Your task to perform on an android device: change the clock display to show seconds Image 0: 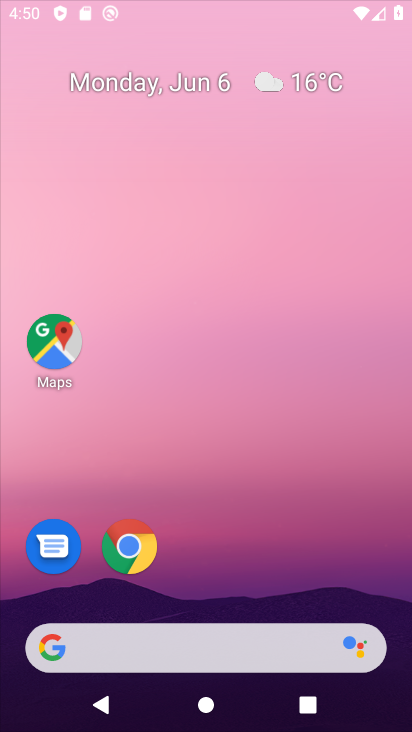
Step 0: click (50, 348)
Your task to perform on an android device: change the clock display to show seconds Image 1: 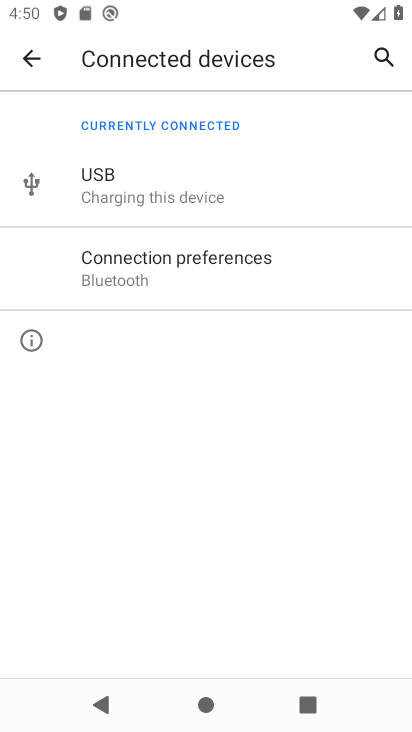
Step 1: press home button
Your task to perform on an android device: change the clock display to show seconds Image 2: 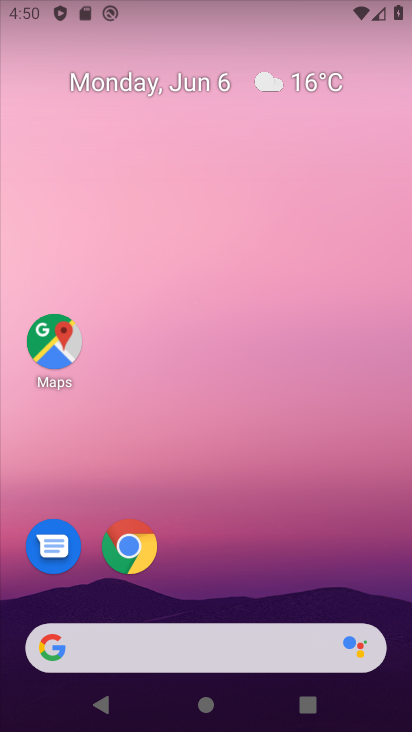
Step 2: drag from (238, 594) to (234, 164)
Your task to perform on an android device: change the clock display to show seconds Image 3: 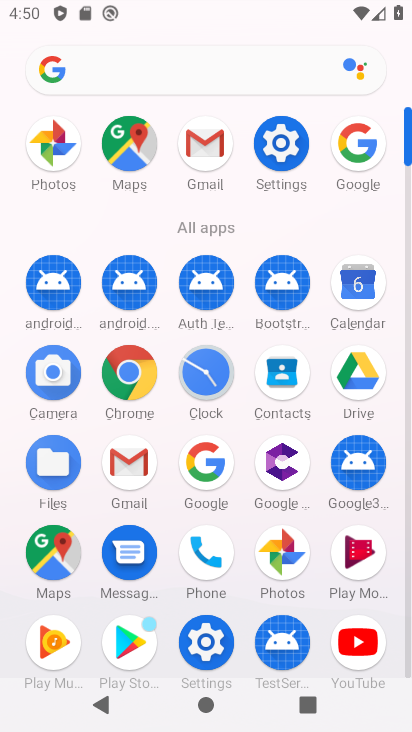
Step 3: click (205, 381)
Your task to perform on an android device: change the clock display to show seconds Image 4: 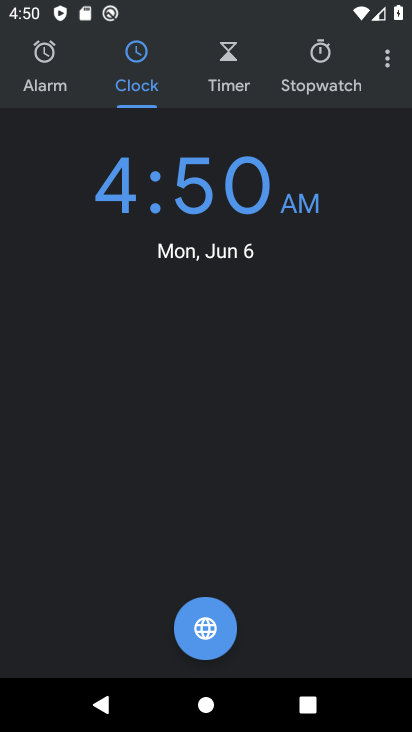
Step 4: click (388, 60)
Your task to perform on an android device: change the clock display to show seconds Image 5: 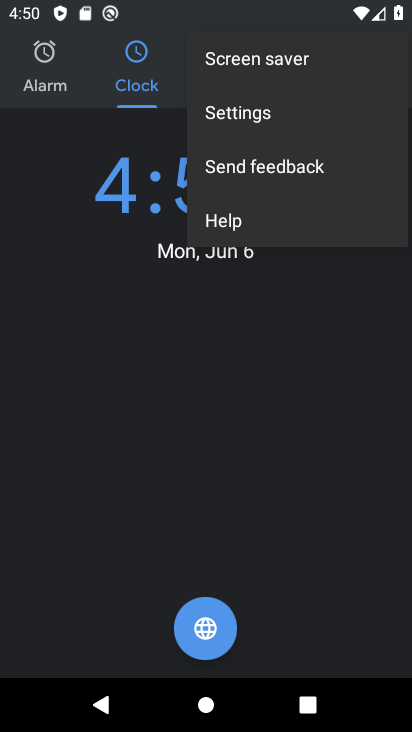
Step 5: click (261, 123)
Your task to perform on an android device: change the clock display to show seconds Image 6: 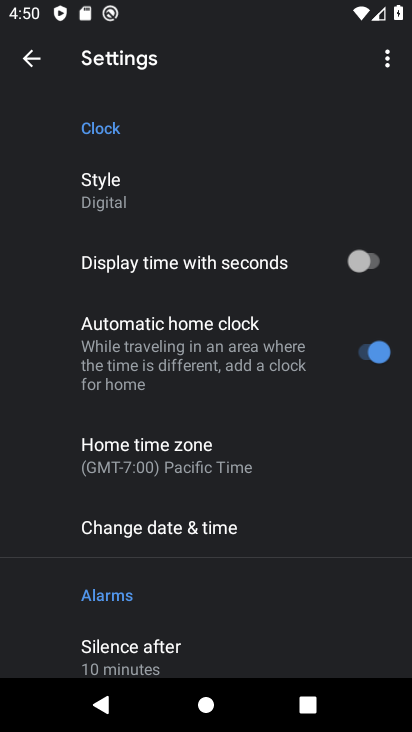
Step 6: click (377, 263)
Your task to perform on an android device: change the clock display to show seconds Image 7: 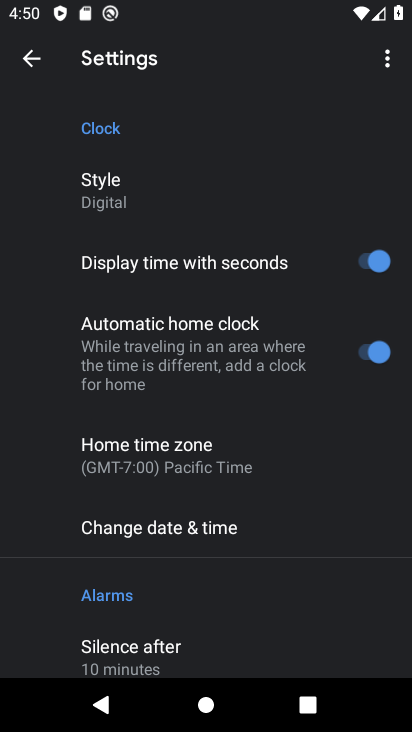
Step 7: task complete